Your task to perform on an android device: What's the weather going to be this weekend? Image 0: 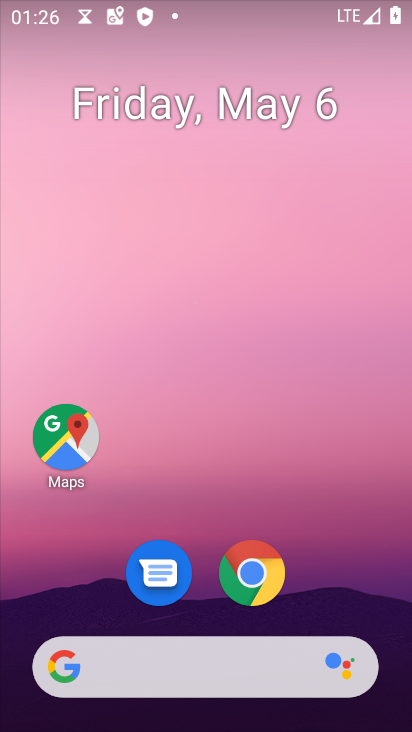
Step 0: drag from (359, 413) to (362, 186)
Your task to perform on an android device: What's the weather going to be this weekend? Image 1: 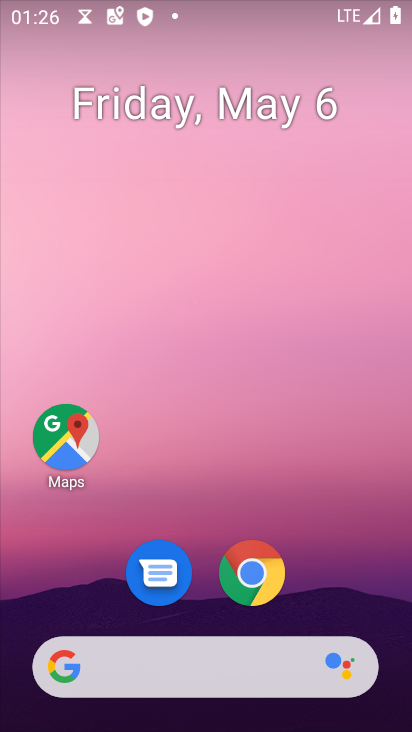
Step 1: drag from (314, 578) to (367, 213)
Your task to perform on an android device: What's the weather going to be this weekend? Image 2: 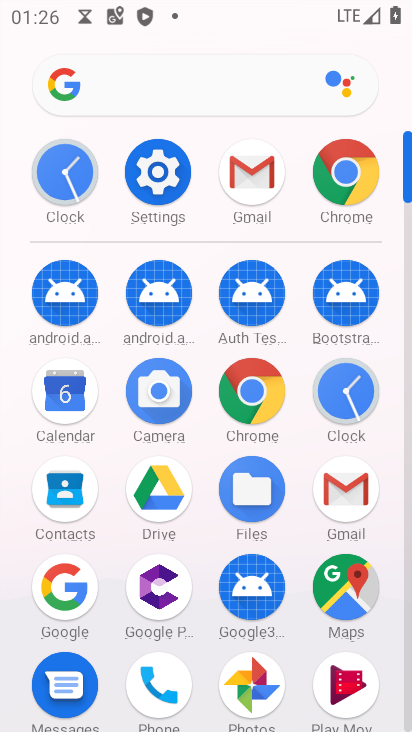
Step 2: click (264, 394)
Your task to perform on an android device: What's the weather going to be this weekend? Image 3: 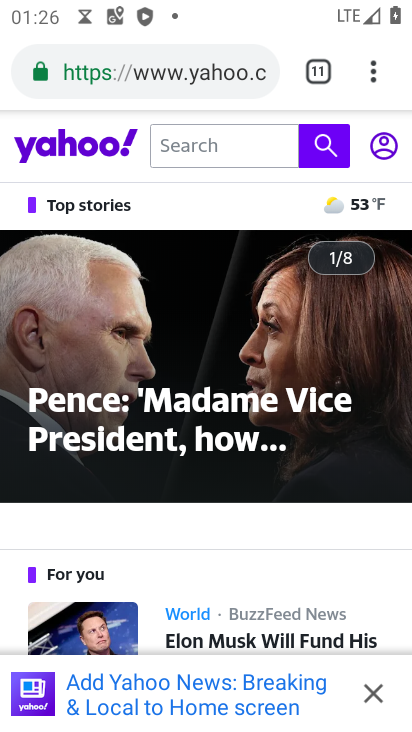
Step 3: click (357, 71)
Your task to perform on an android device: What's the weather going to be this weekend? Image 4: 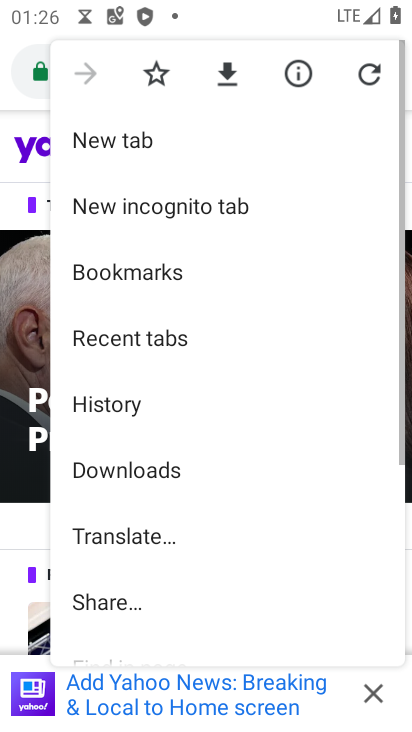
Step 4: click (136, 139)
Your task to perform on an android device: What's the weather going to be this weekend? Image 5: 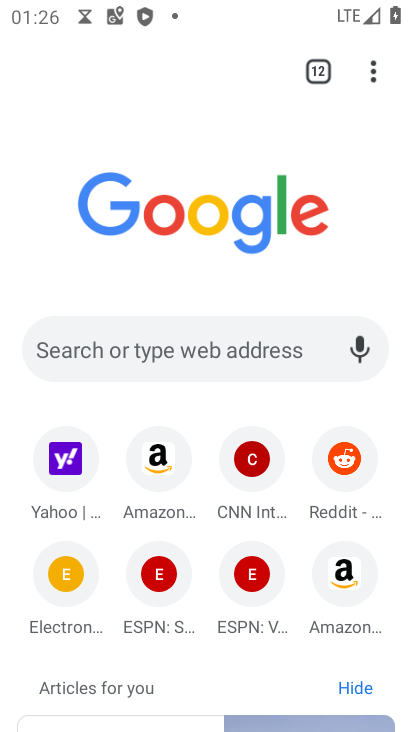
Step 5: click (248, 331)
Your task to perform on an android device: What's the weather going to be this weekend? Image 6: 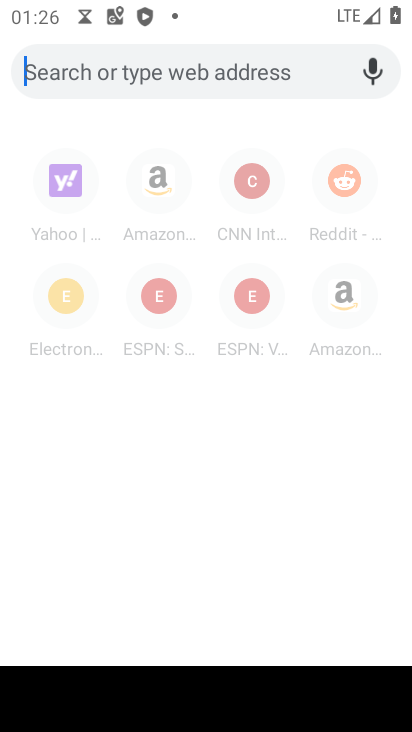
Step 6: type "What's the weather going to be this weekend?"
Your task to perform on an android device: What's the weather going to be this weekend? Image 7: 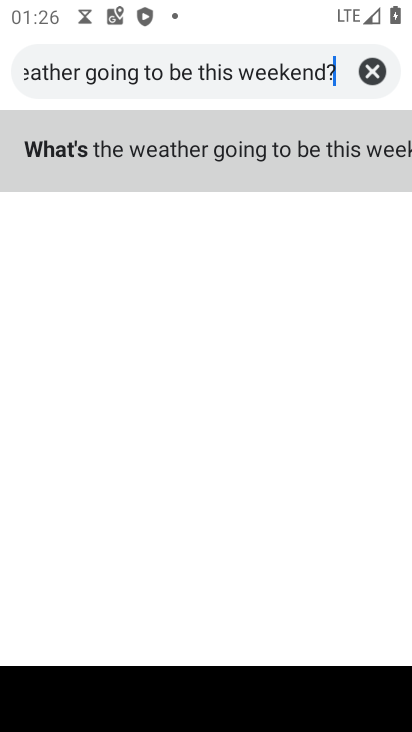
Step 7: click (161, 159)
Your task to perform on an android device: What's the weather going to be this weekend? Image 8: 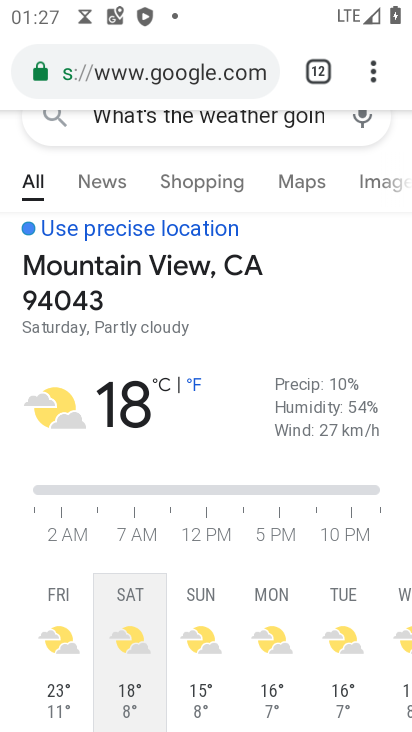
Step 8: task complete